Your task to perform on an android device: Search for razer kraken on walmart.com, select the first entry, add it to the cart, then select checkout. Image 0: 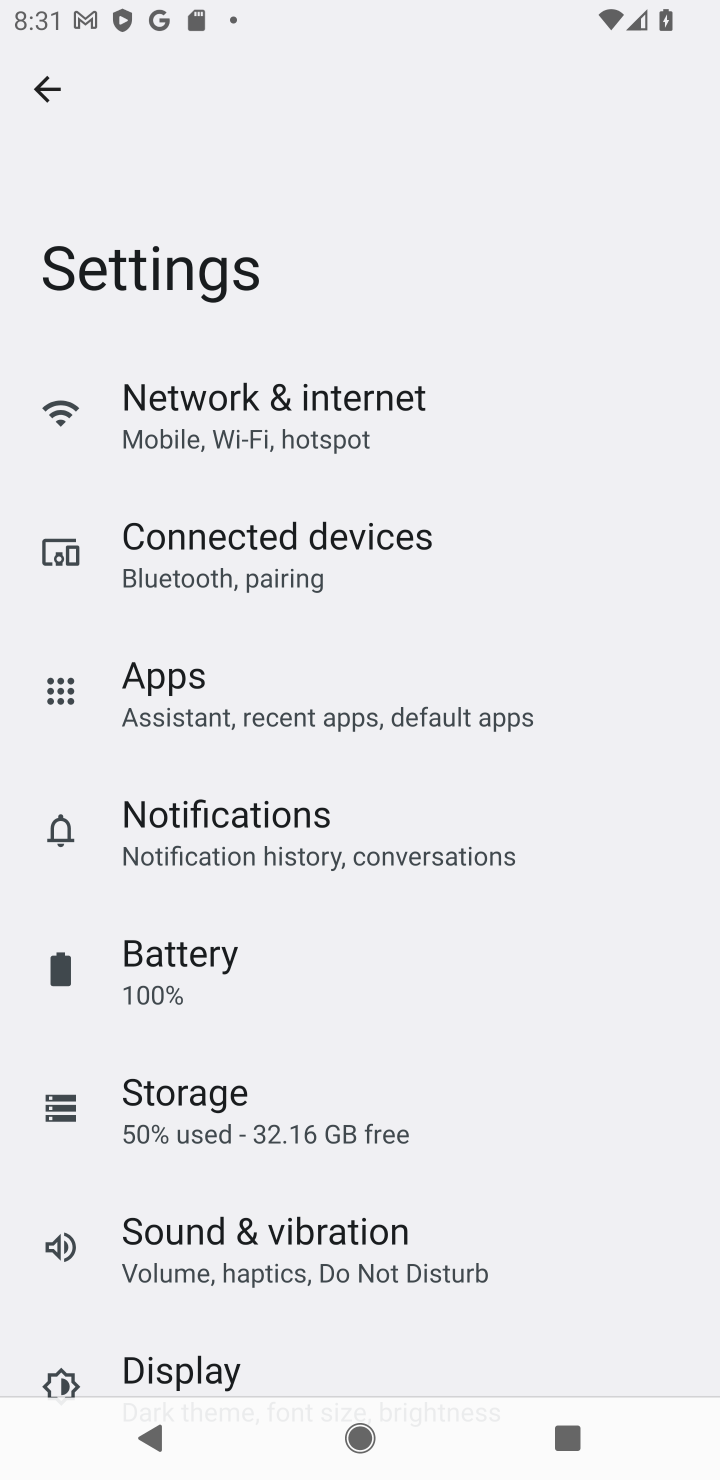
Step 0: press home button
Your task to perform on an android device: Search for razer kraken on walmart.com, select the first entry, add it to the cart, then select checkout. Image 1: 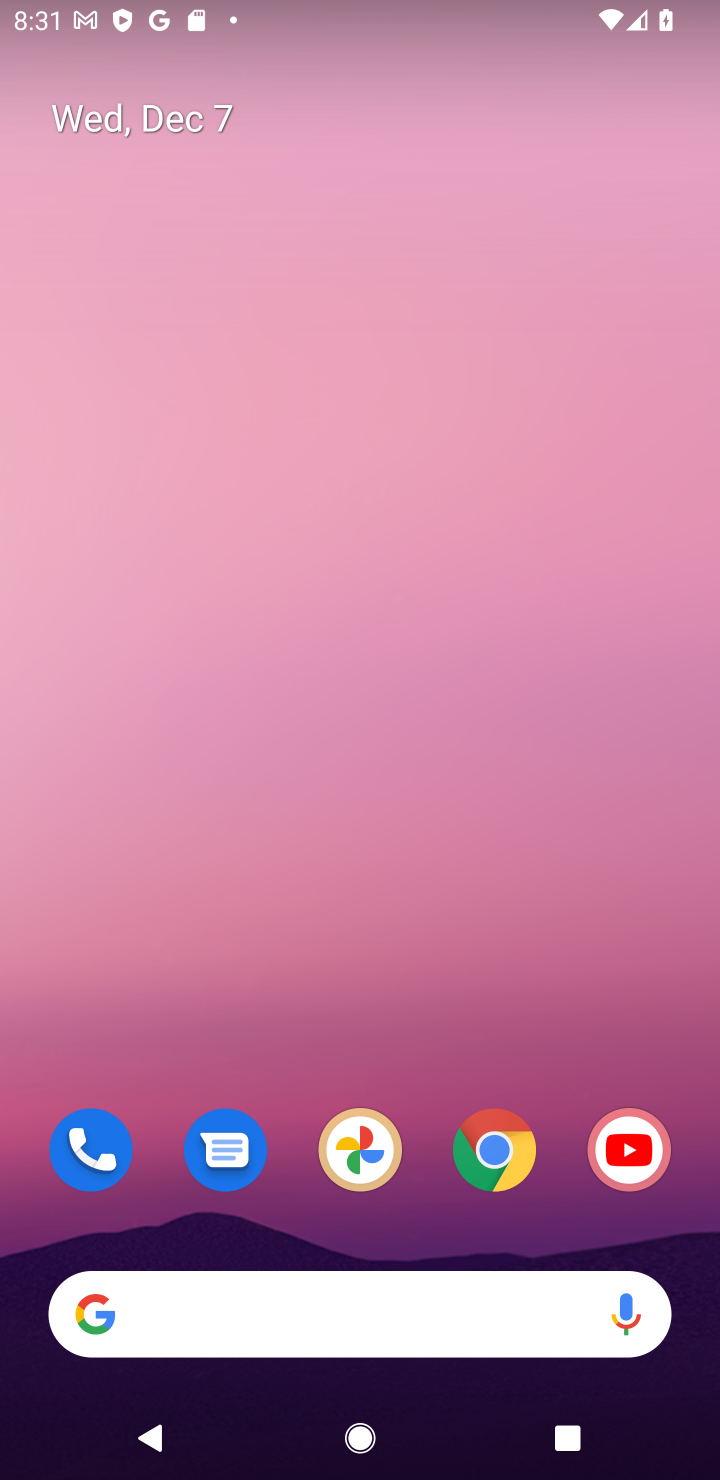
Step 1: click (520, 1160)
Your task to perform on an android device: Search for razer kraken on walmart.com, select the first entry, add it to the cart, then select checkout. Image 2: 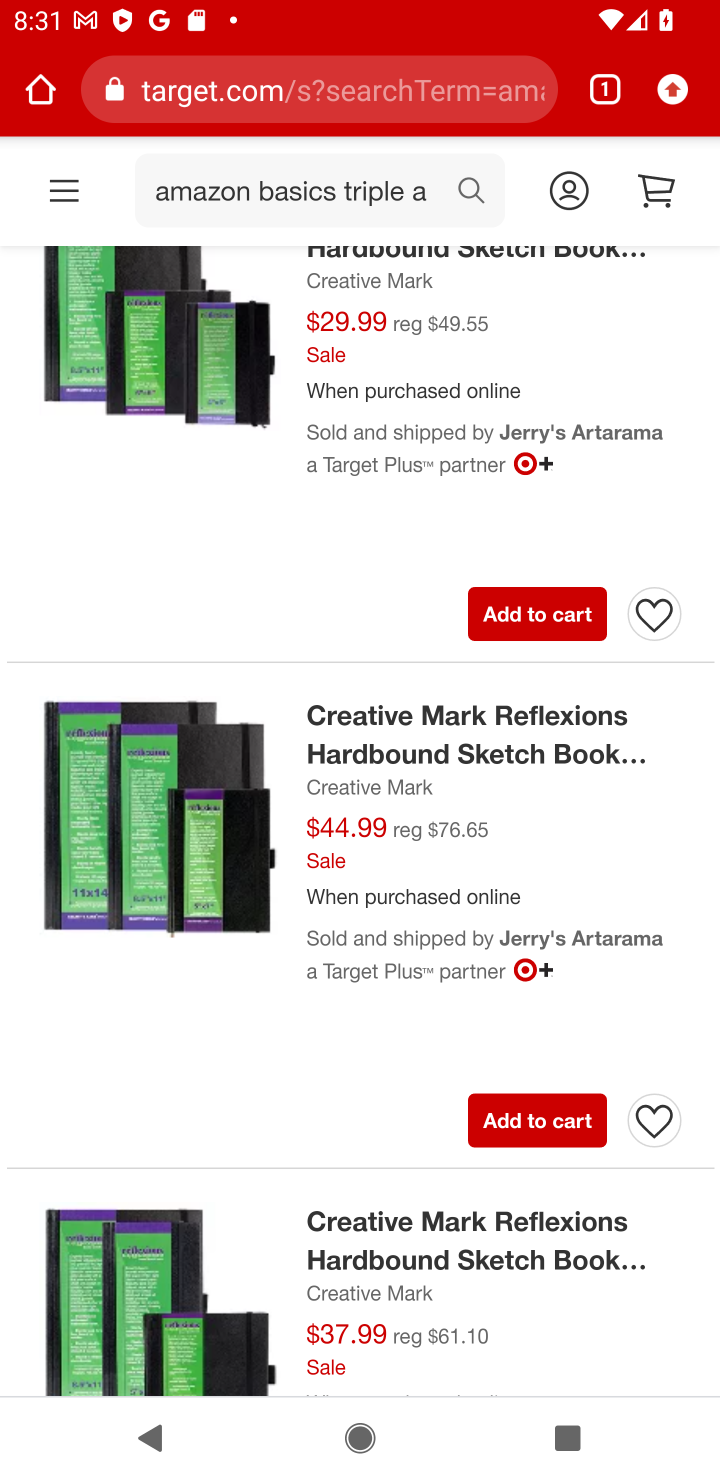
Step 2: click (227, 84)
Your task to perform on an android device: Search for razer kraken on walmart.com, select the first entry, add it to the cart, then select checkout. Image 3: 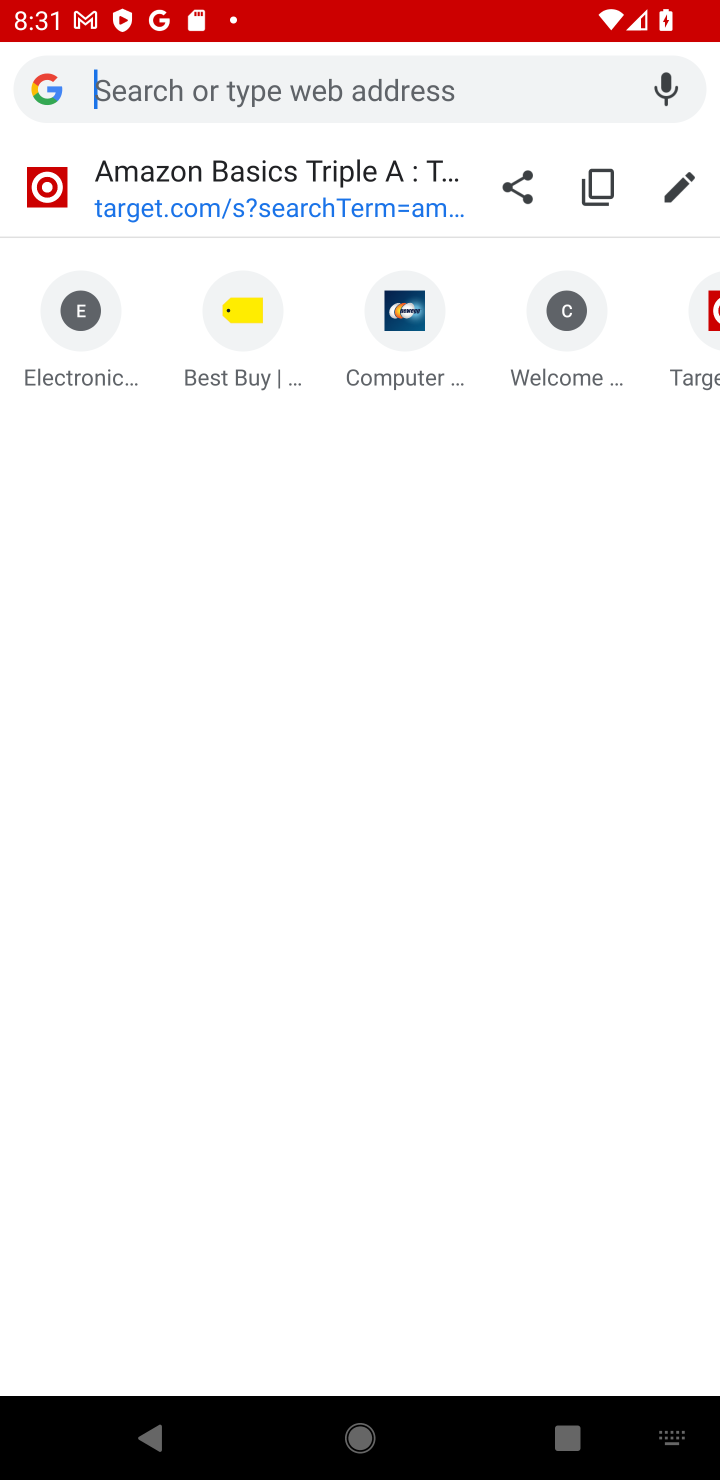
Step 3: type "walmart.com"
Your task to perform on an android device: Search for razer kraken on walmart.com, select the first entry, add it to the cart, then select checkout. Image 4: 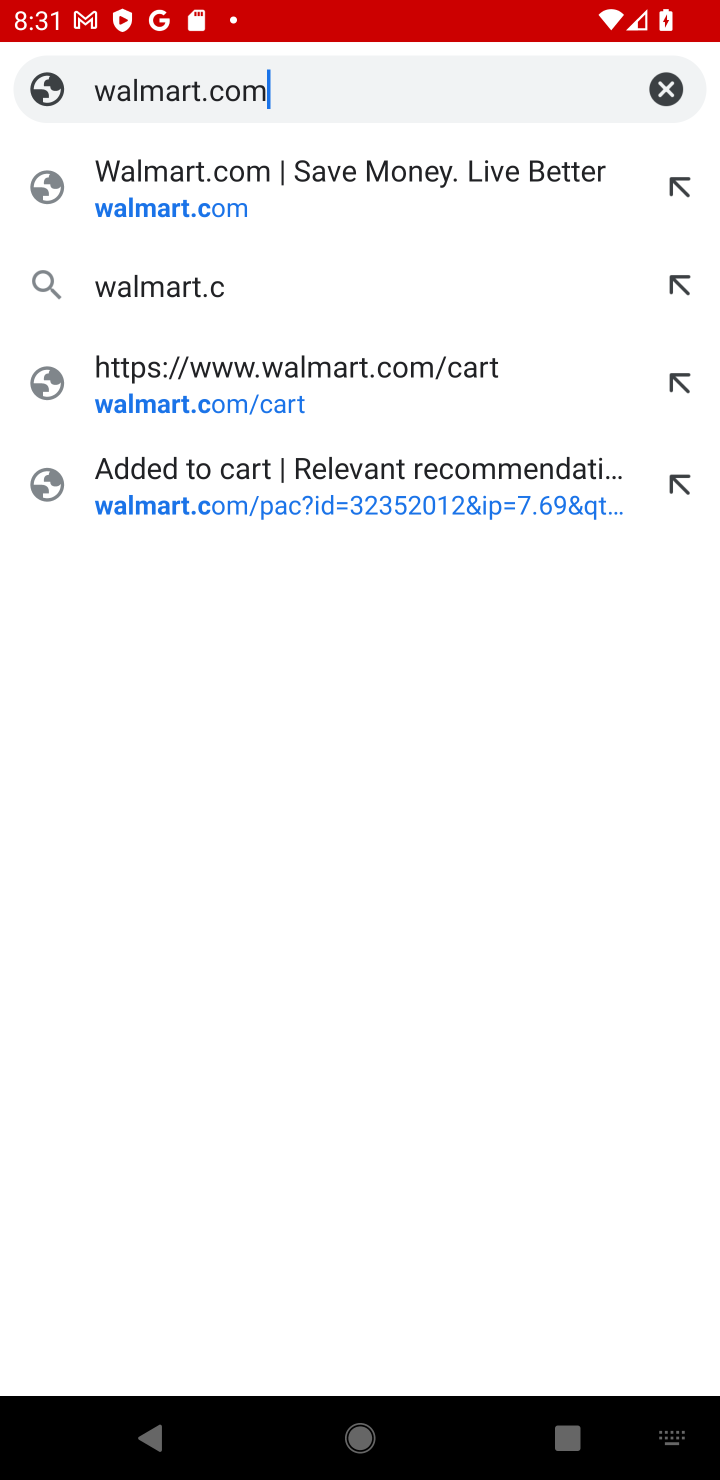
Step 4: press enter
Your task to perform on an android device: Search for razer kraken on walmart.com, select the first entry, add it to the cart, then select checkout. Image 5: 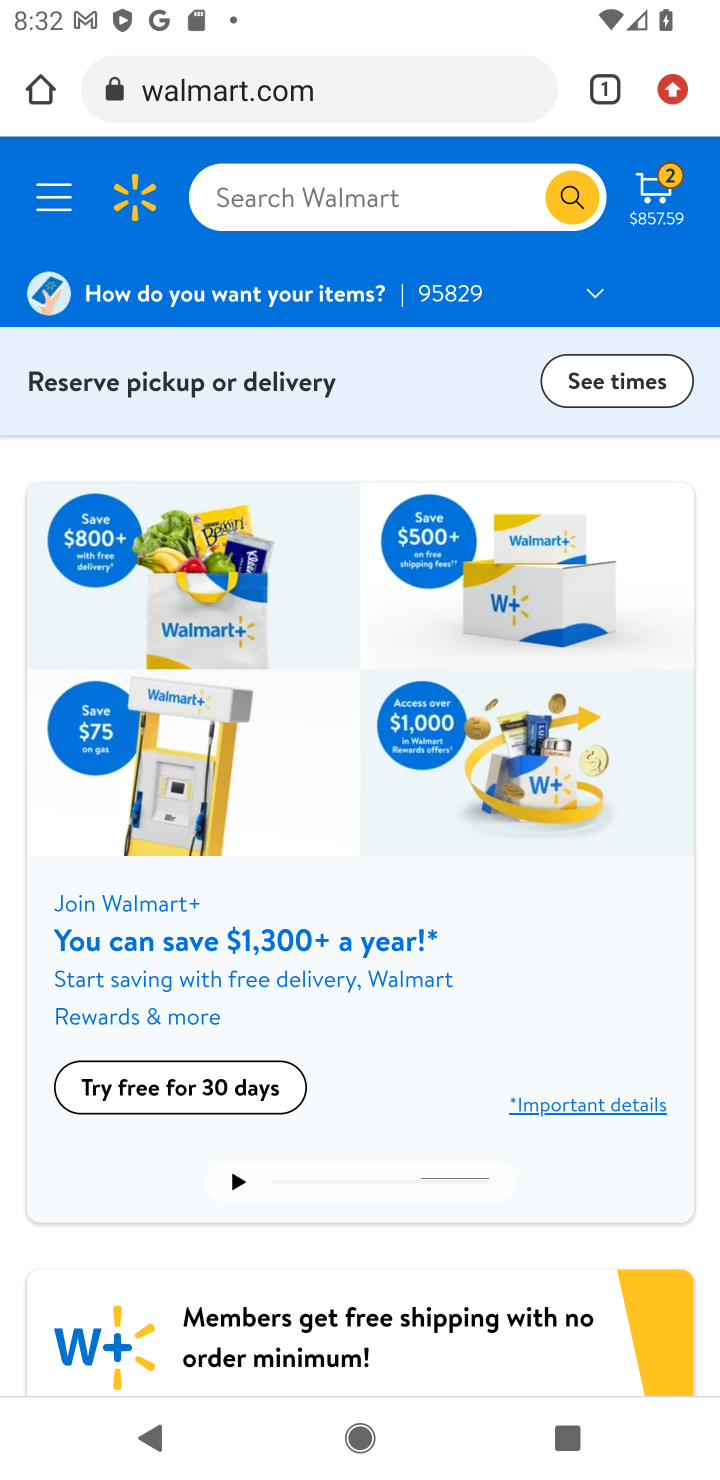
Step 5: click (416, 195)
Your task to perform on an android device: Search for razer kraken on walmart.com, select the first entry, add it to the cart, then select checkout. Image 6: 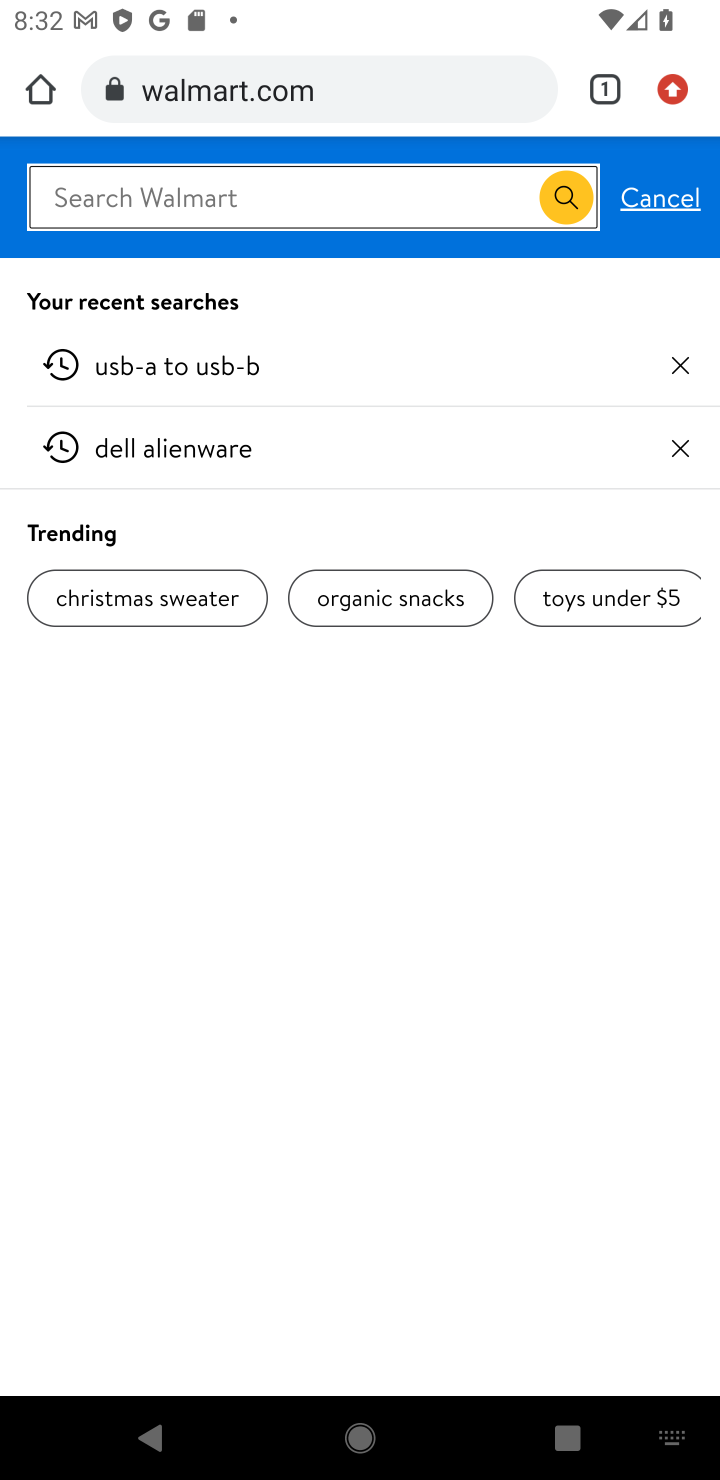
Step 6: type "razer kraken"
Your task to perform on an android device: Search for razer kraken on walmart.com, select the first entry, add it to the cart, then select checkout. Image 7: 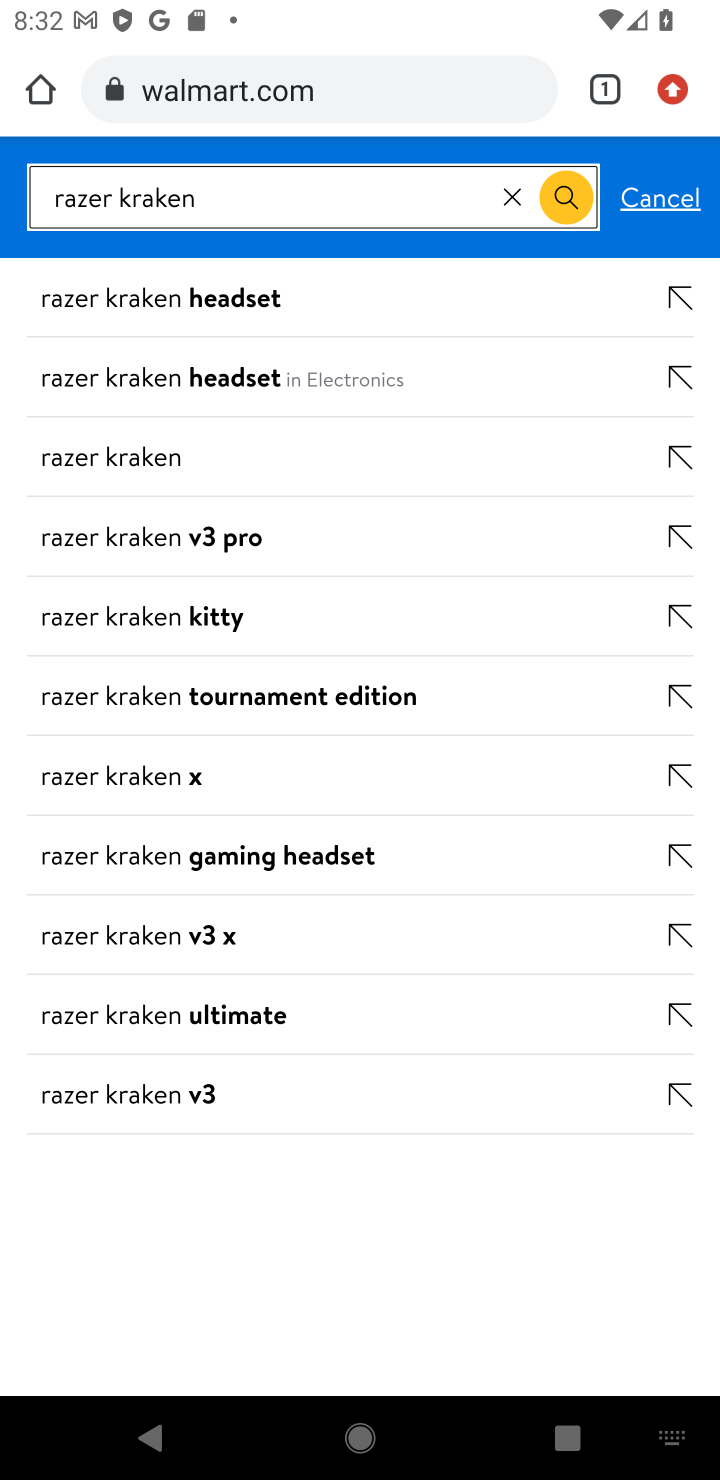
Step 7: click (140, 459)
Your task to perform on an android device: Search for razer kraken on walmart.com, select the first entry, add it to the cart, then select checkout. Image 8: 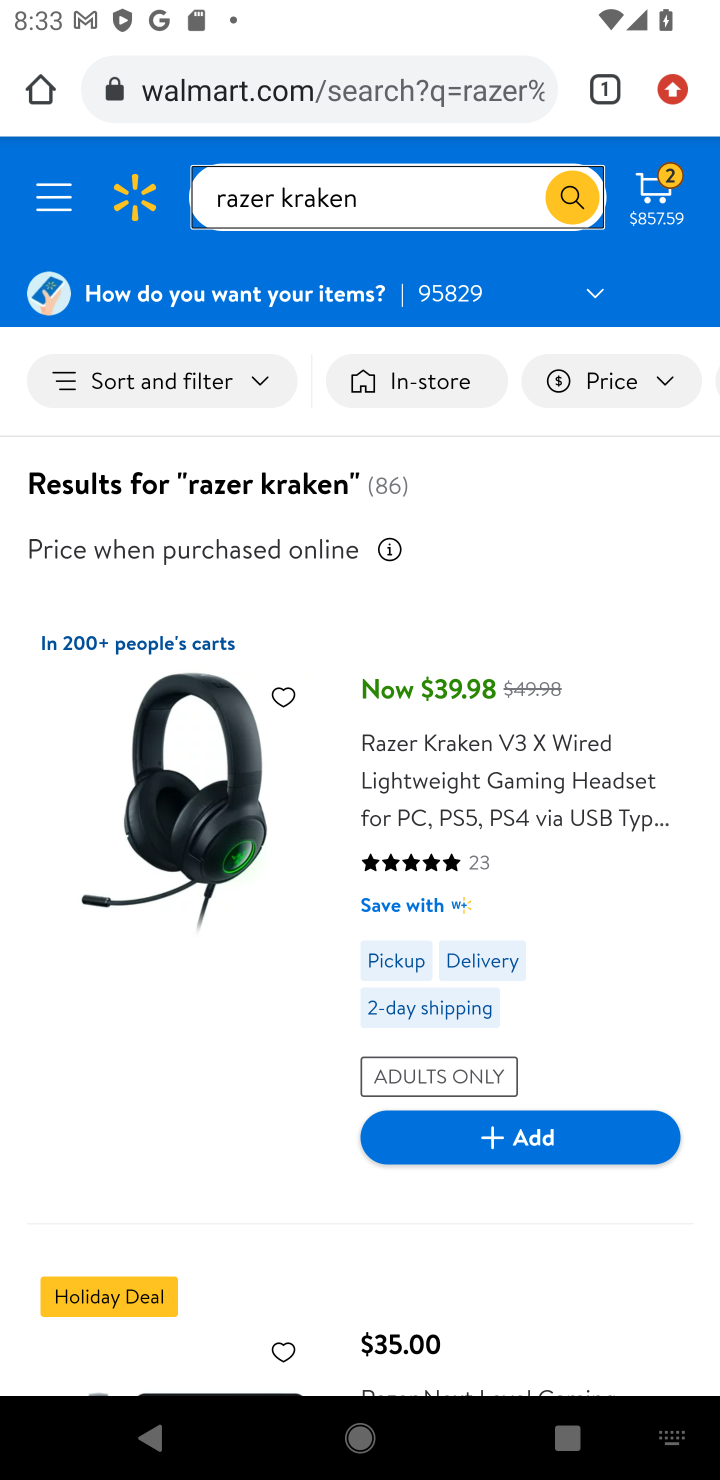
Step 8: click (172, 775)
Your task to perform on an android device: Search for razer kraken on walmart.com, select the first entry, add it to the cart, then select checkout. Image 9: 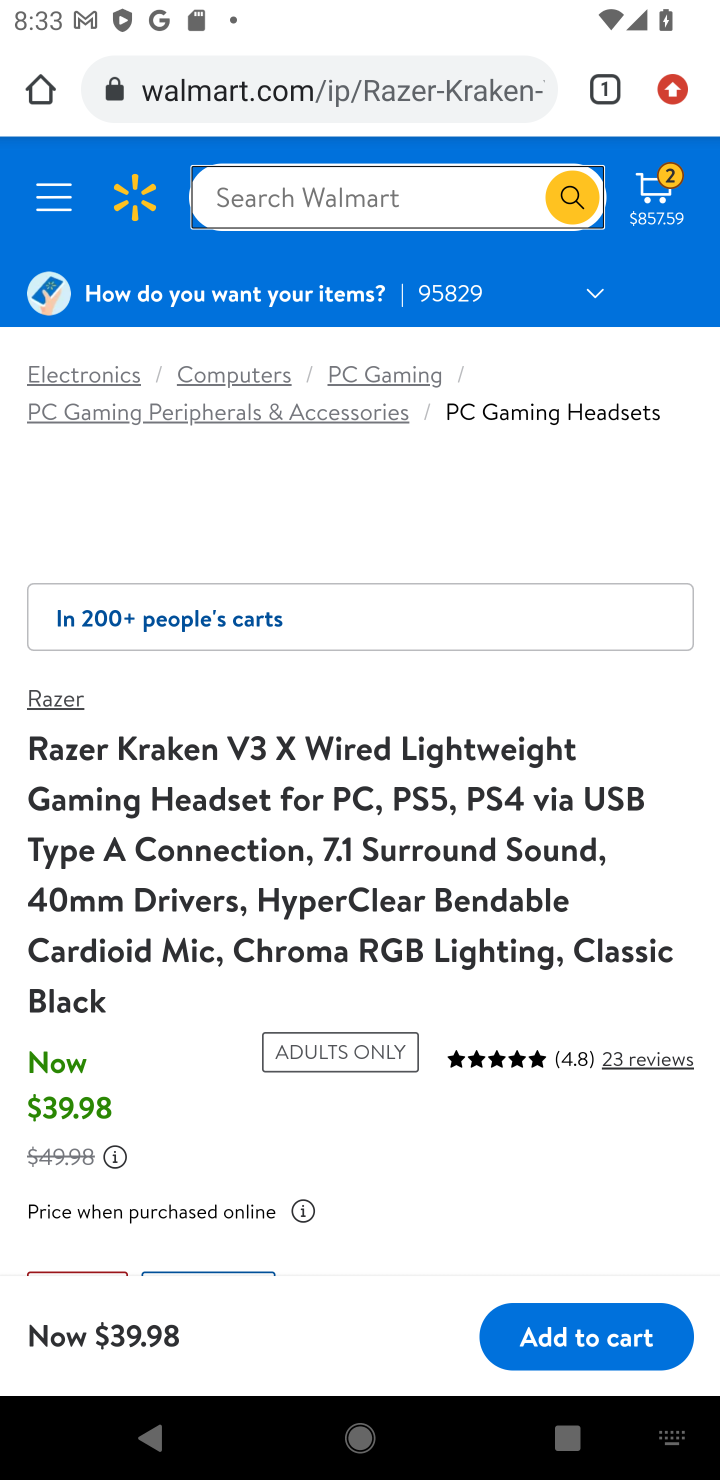
Step 9: click (600, 1328)
Your task to perform on an android device: Search for razer kraken on walmart.com, select the first entry, add it to the cart, then select checkout. Image 10: 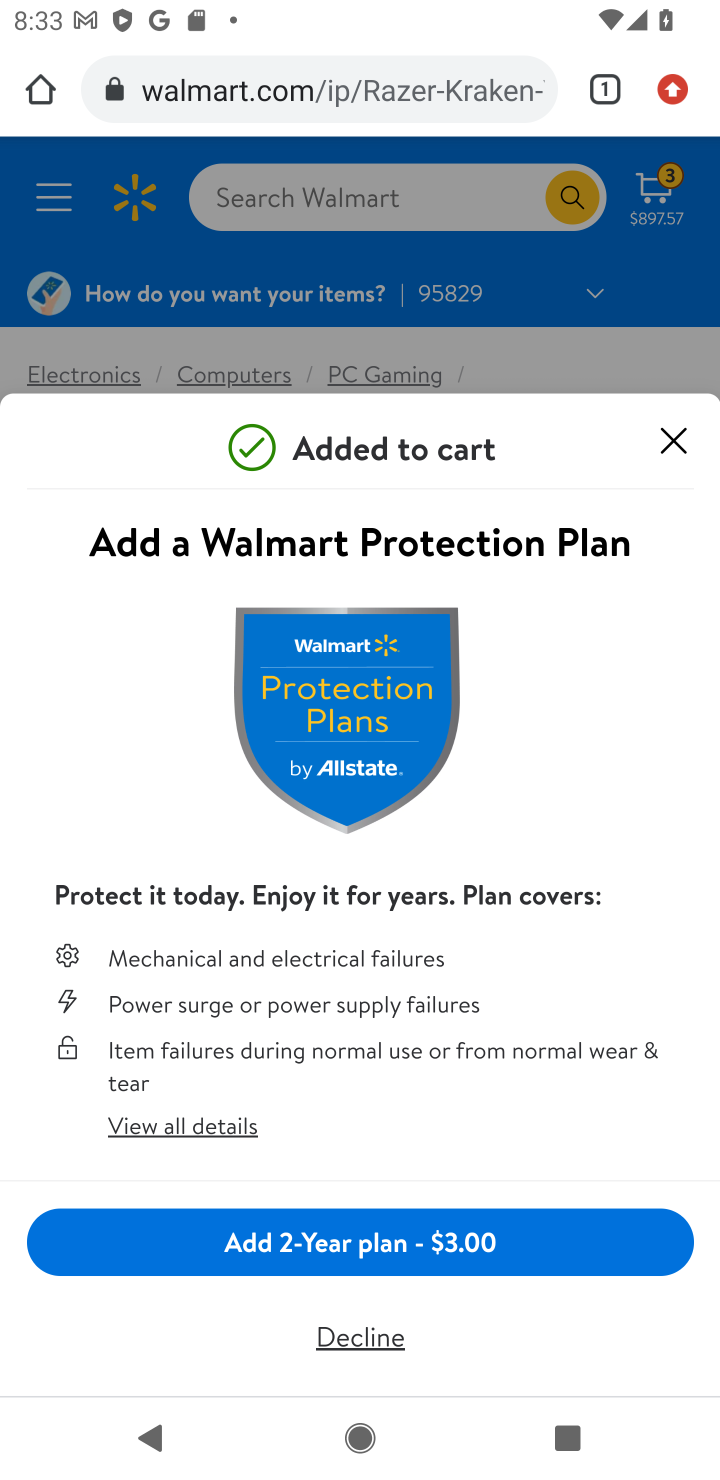
Step 10: click (670, 439)
Your task to perform on an android device: Search for razer kraken on walmart.com, select the first entry, add it to the cart, then select checkout. Image 11: 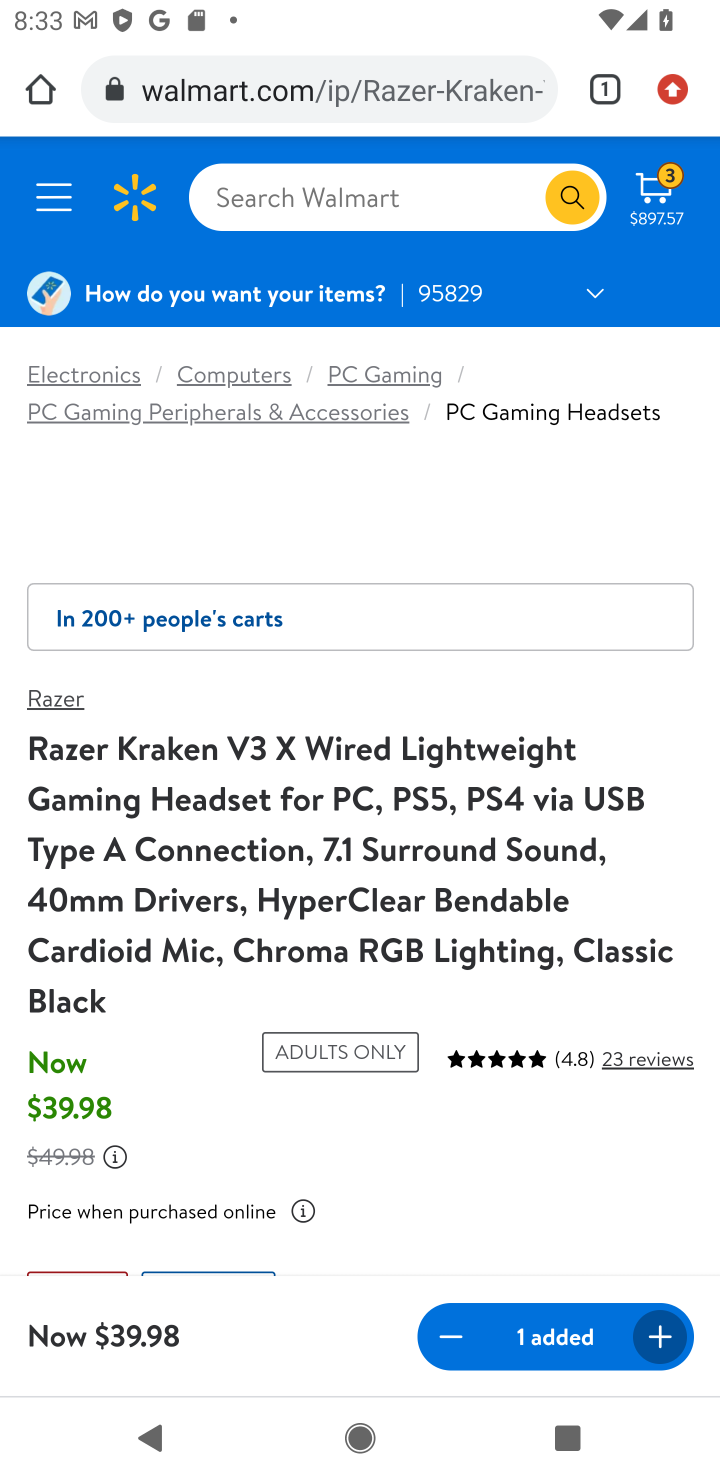
Step 11: click (640, 186)
Your task to perform on an android device: Search for razer kraken on walmart.com, select the first entry, add it to the cart, then select checkout. Image 12: 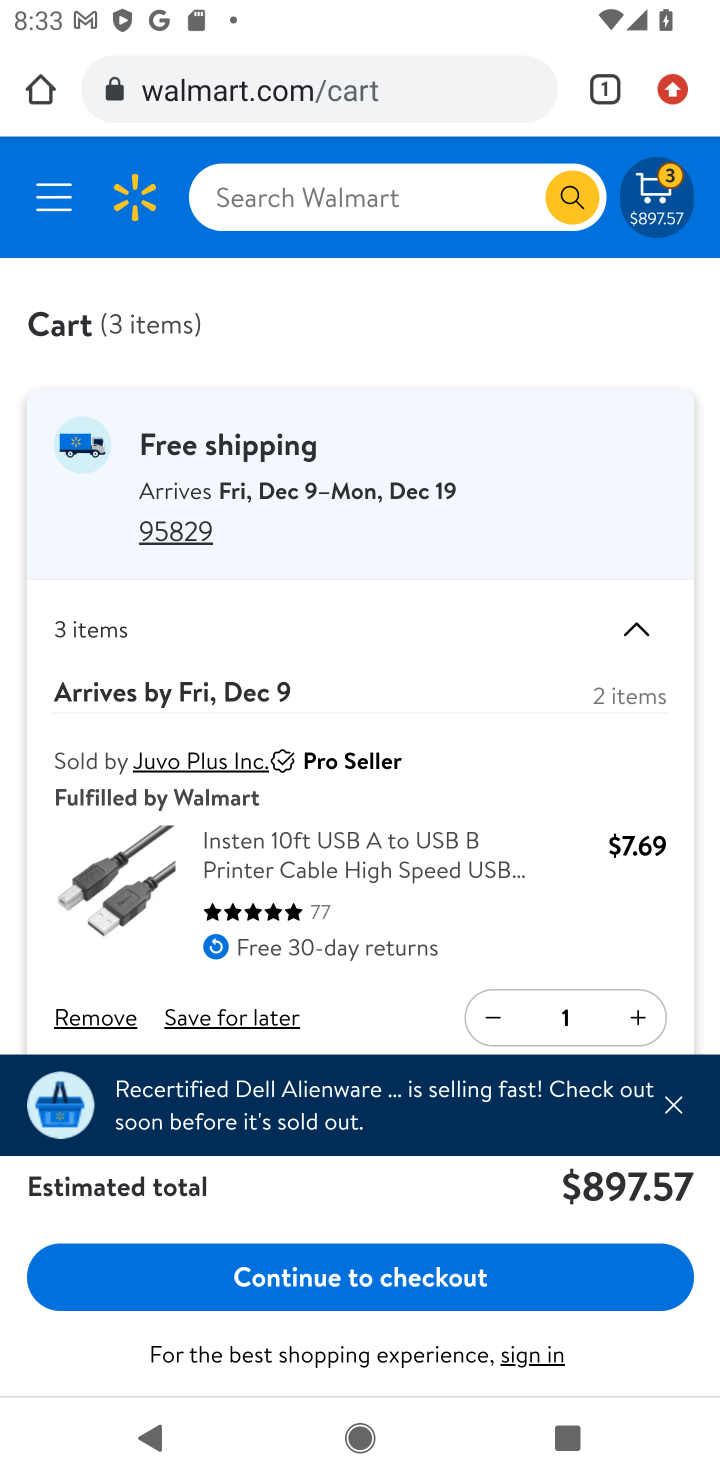
Step 12: click (355, 1272)
Your task to perform on an android device: Search for razer kraken on walmart.com, select the first entry, add it to the cart, then select checkout. Image 13: 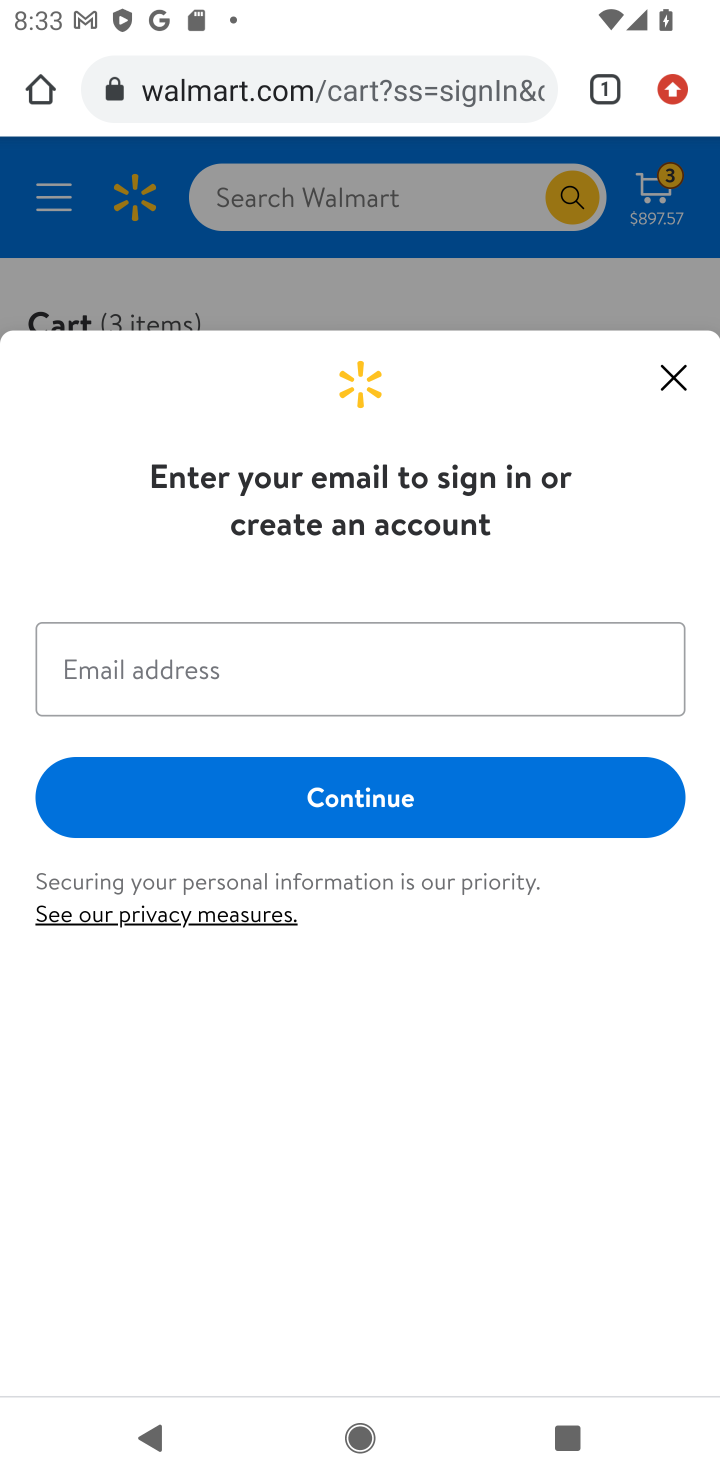
Step 13: task complete